Your task to perform on an android device: Open Chrome and go to the settings page Image 0: 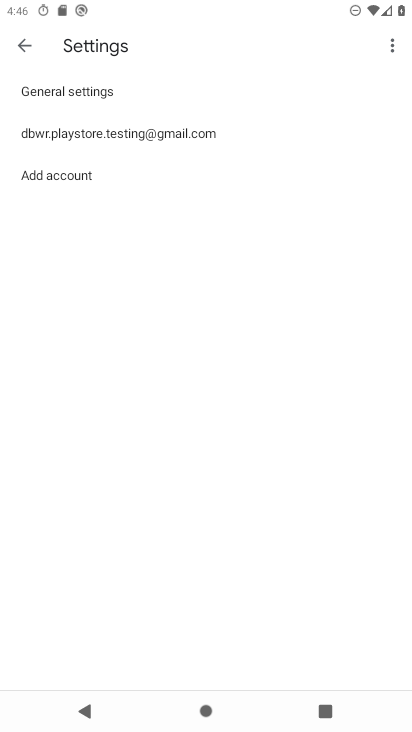
Step 0: press home button
Your task to perform on an android device: Open Chrome and go to the settings page Image 1: 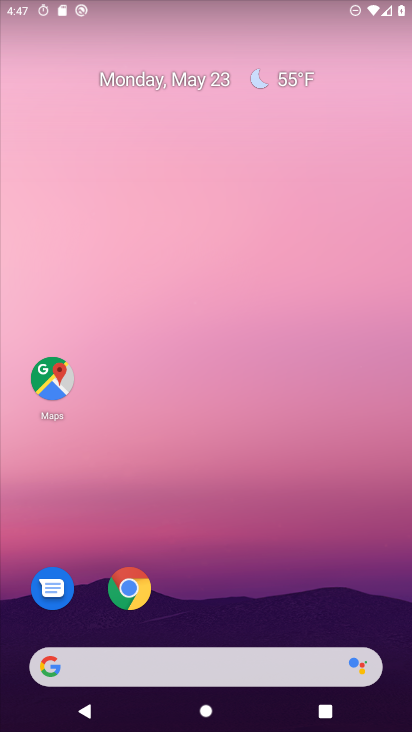
Step 1: click (135, 585)
Your task to perform on an android device: Open Chrome and go to the settings page Image 2: 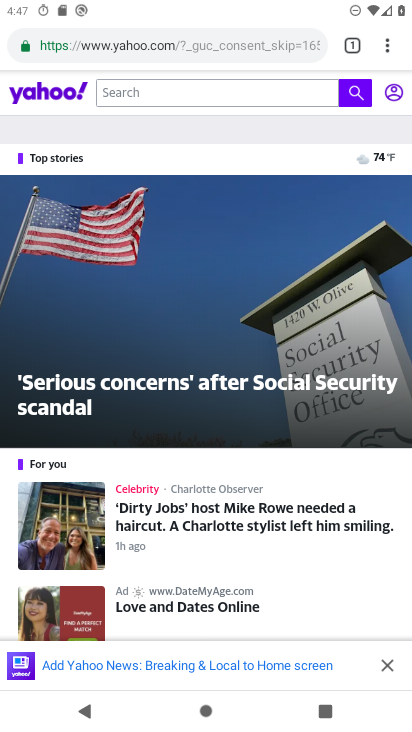
Step 2: click (378, 41)
Your task to perform on an android device: Open Chrome and go to the settings page Image 3: 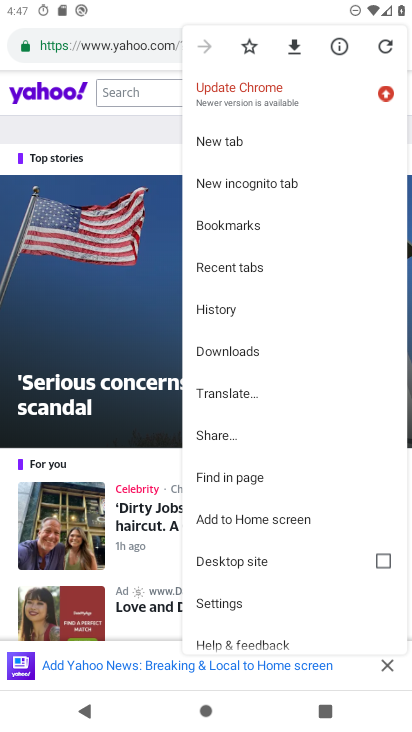
Step 3: click (231, 603)
Your task to perform on an android device: Open Chrome and go to the settings page Image 4: 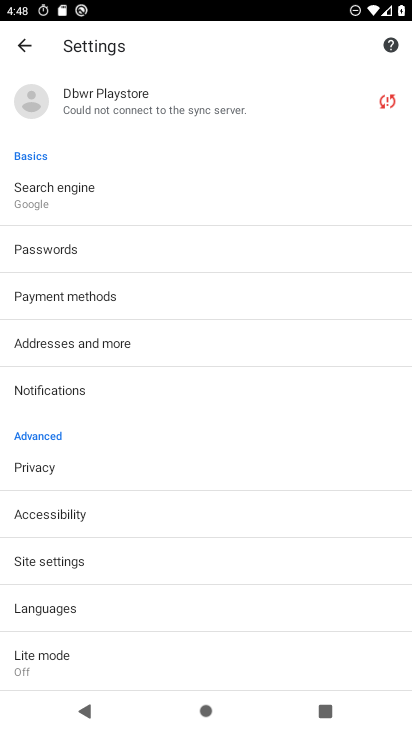
Step 4: task complete